Your task to perform on an android device: create a new album in the google photos Image 0: 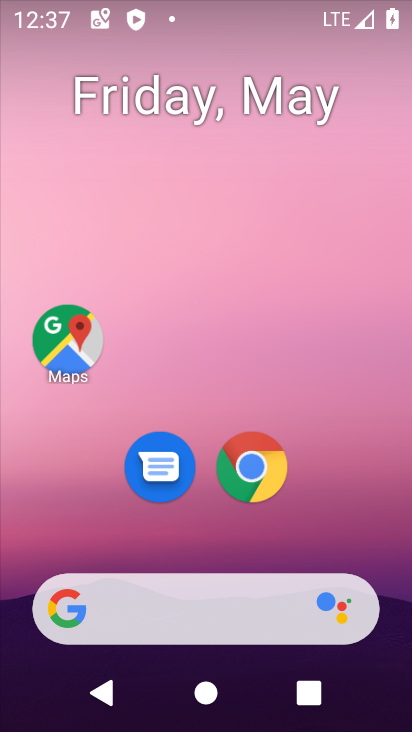
Step 0: drag from (331, 512) to (196, 0)
Your task to perform on an android device: create a new album in the google photos Image 1: 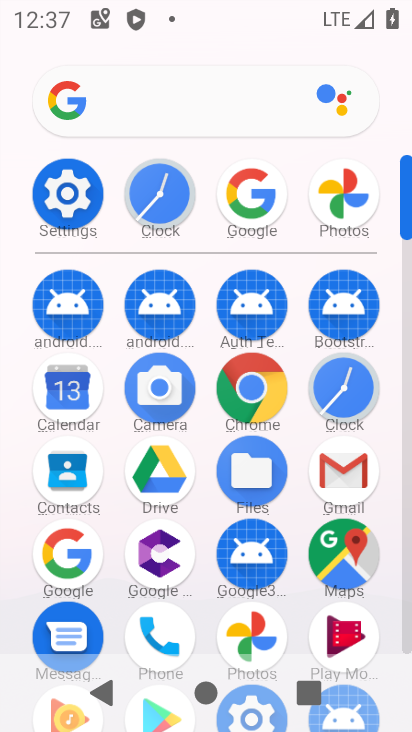
Step 1: click (342, 192)
Your task to perform on an android device: create a new album in the google photos Image 2: 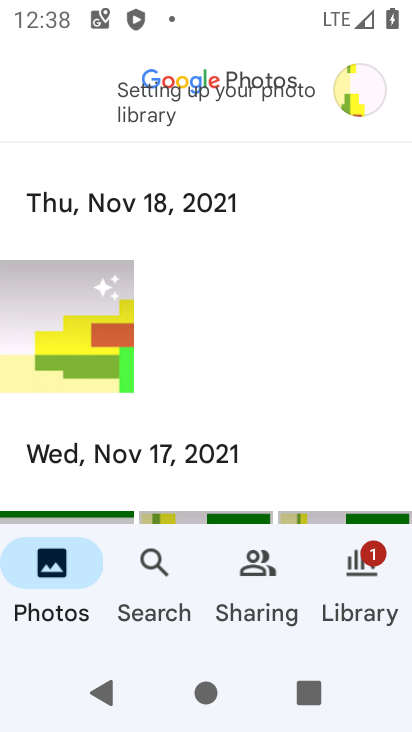
Step 2: click (370, 567)
Your task to perform on an android device: create a new album in the google photos Image 3: 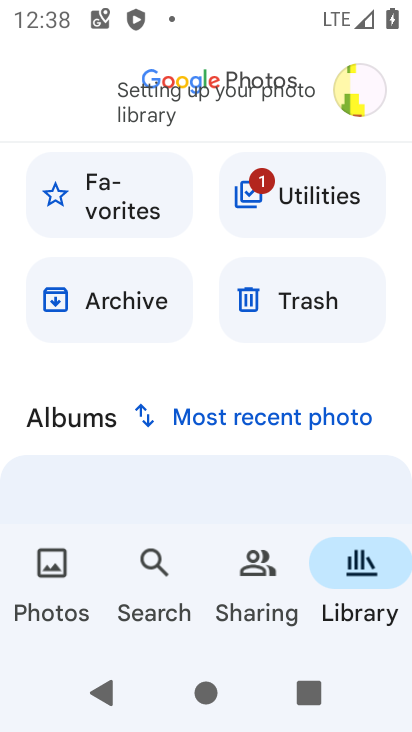
Step 3: drag from (218, 372) to (242, 190)
Your task to perform on an android device: create a new album in the google photos Image 4: 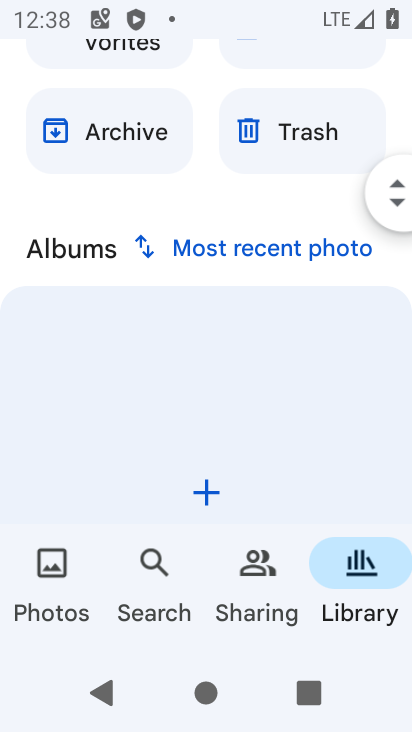
Step 4: click (202, 491)
Your task to perform on an android device: create a new album in the google photos Image 5: 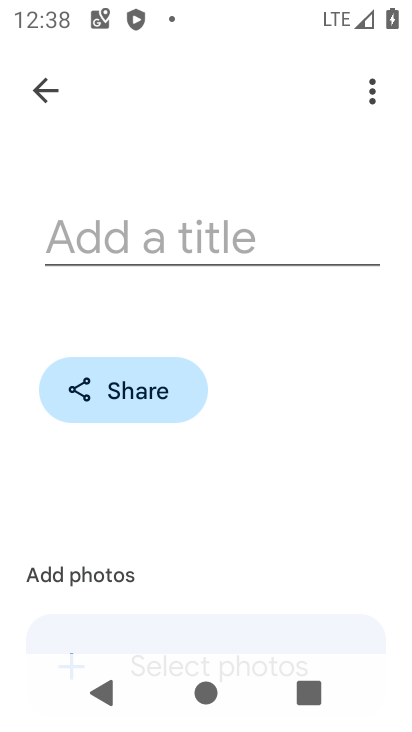
Step 5: click (236, 222)
Your task to perform on an android device: create a new album in the google photos Image 6: 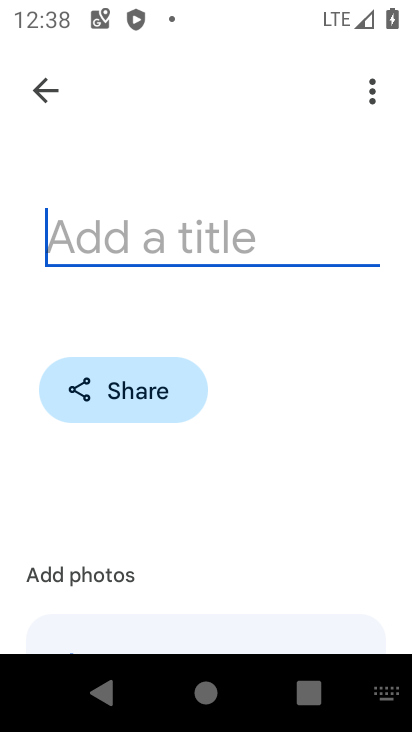
Step 6: type "lilly"
Your task to perform on an android device: create a new album in the google photos Image 7: 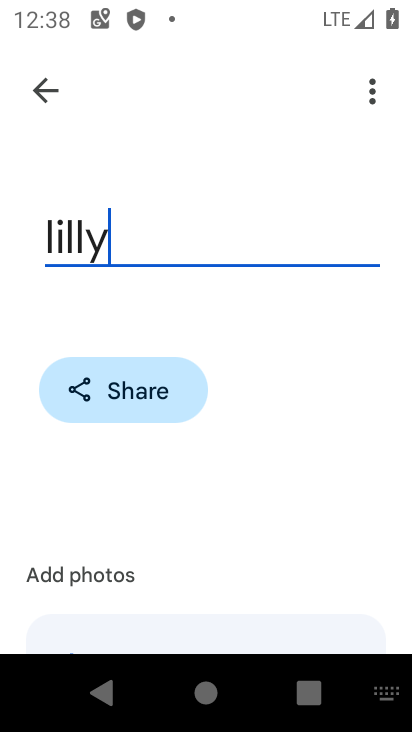
Step 7: type ""
Your task to perform on an android device: create a new album in the google photos Image 8: 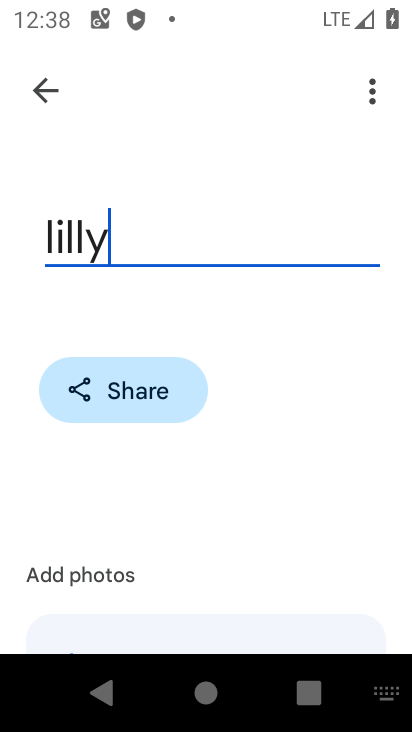
Step 8: drag from (209, 486) to (283, 206)
Your task to perform on an android device: create a new album in the google photos Image 9: 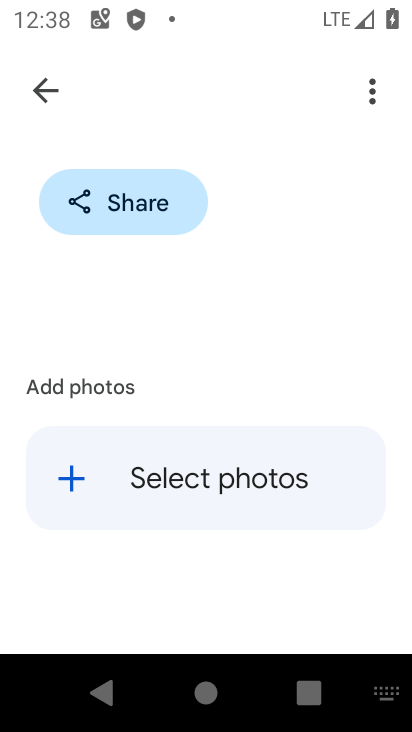
Step 9: click (69, 474)
Your task to perform on an android device: create a new album in the google photos Image 10: 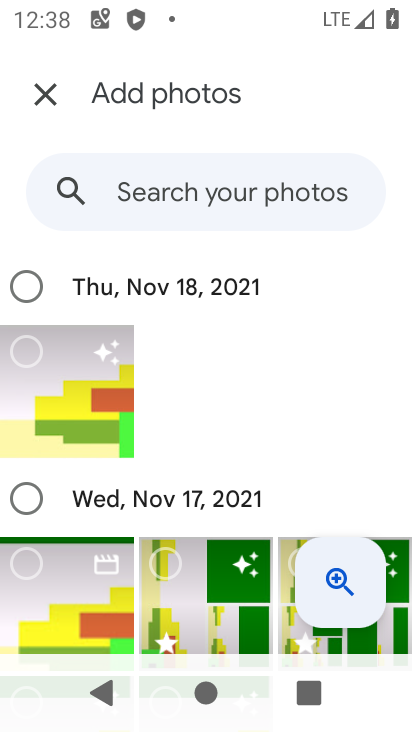
Step 10: click (29, 293)
Your task to perform on an android device: create a new album in the google photos Image 11: 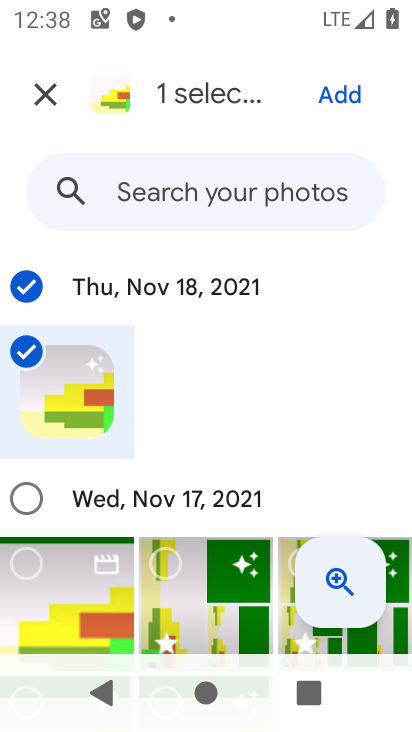
Step 11: click (348, 92)
Your task to perform on an android device: create a new album in the google photos Image 12: 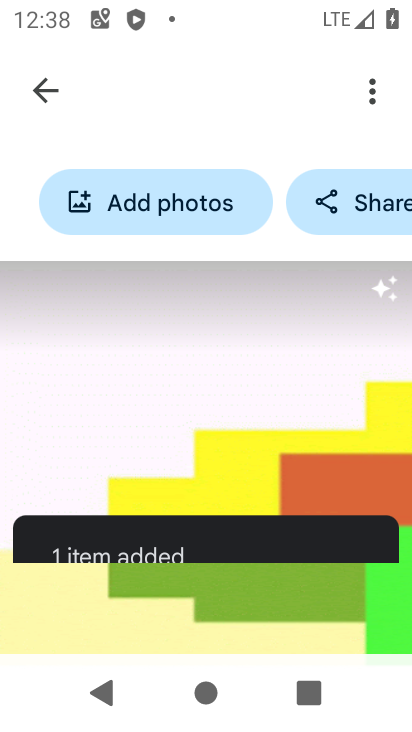
Step 12: task complete